Your task to perform on an android device: Open notification settings Image 0: 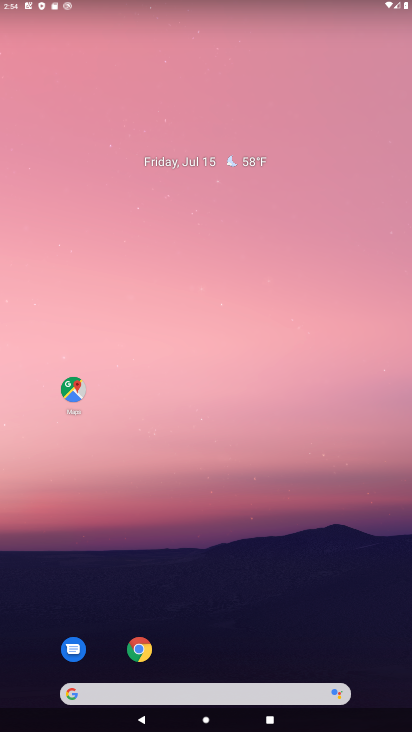
Step 0: drag from (238, 677) to (244, 272)
Your task to perform on an android device: Open notification settings Image 1: 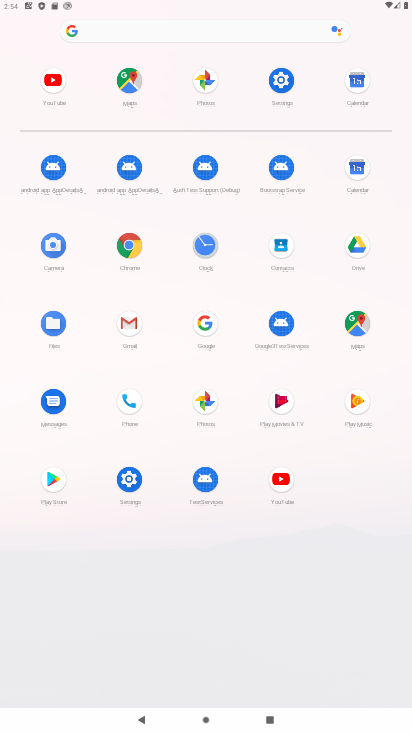
Step 1: click (278, 90)
Your task to perform on an android device: Open notification settings Image 2: 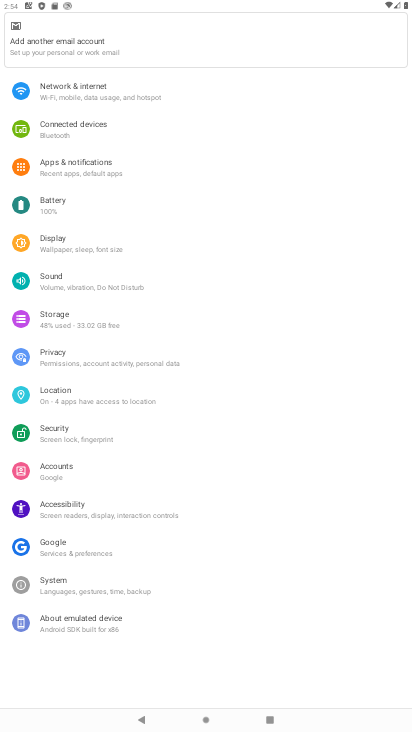
Step 2: click (90, 163)
Your task to perform on an android device: Open notification settings Image 3: 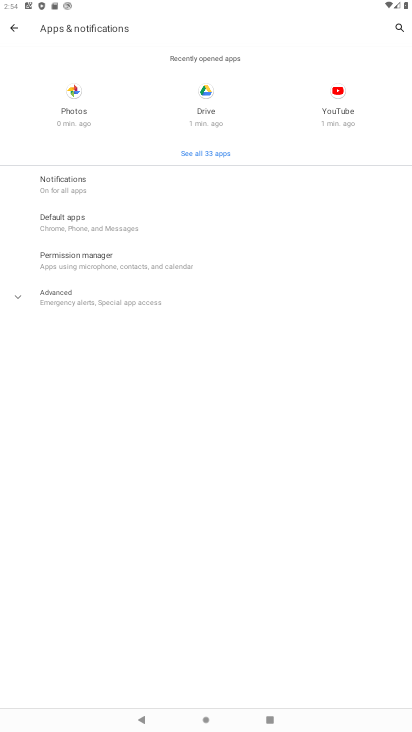
Step 3: click (67, 181)
Your task to perform on an android device: Open notification settings Image 4: 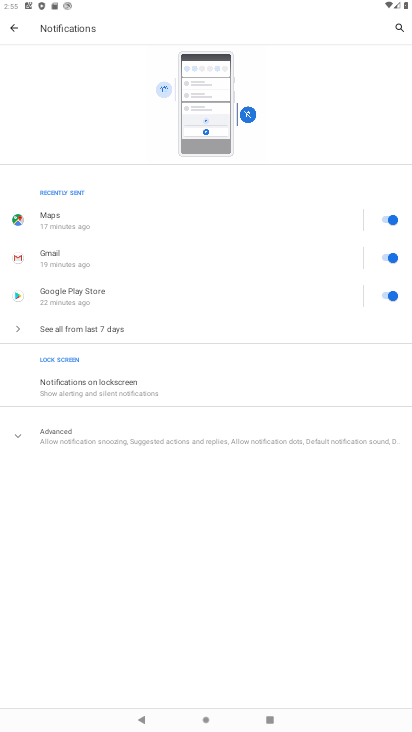
Step 4: task complete